Your task to perform on an android device: turn off sleep mode Image 0: 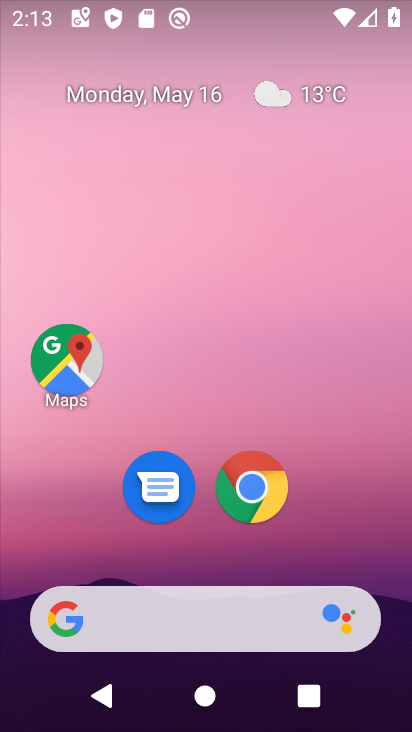
Step 0: drag from (305, 412) to (210, 37)
Your task to perform on an android device: turn off sleep mode Image 1: 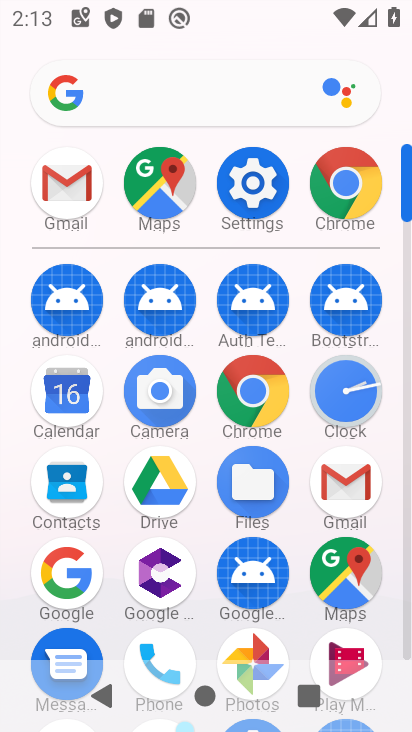
Step 1: click (251, 184)
Your task to perform on an android device: turn off sleep mode Image 2: 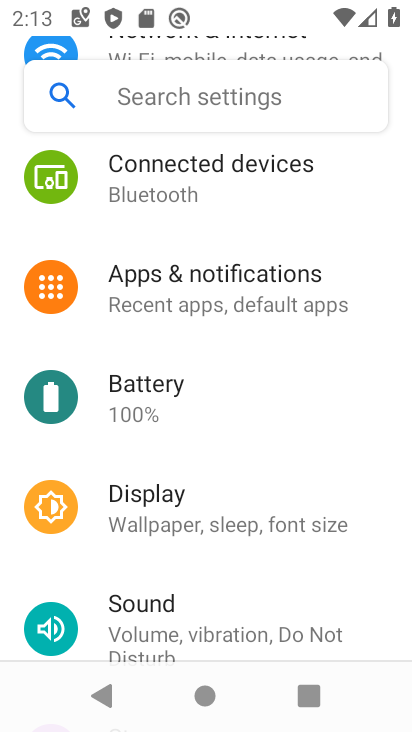
Step 2: drag from (243, 226) to (240, 600)
Your task to perform on an android device: turn off sleep mode Image 3: 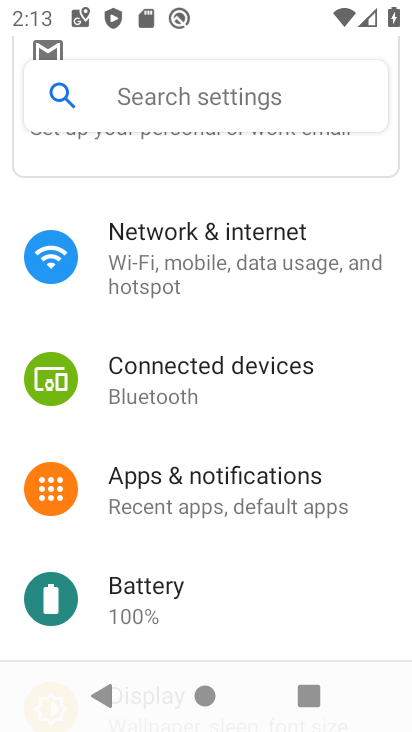
Step 3: click (249, 250)
Your task to perform on an android device: turn off sleep mode Image 4: 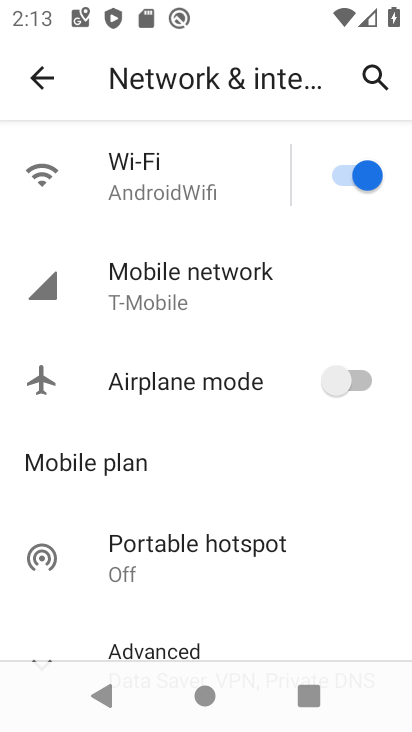
Step 4: drag from (265, 519) to (210, 174)
Your task to perform on an android device: turn off sleep mode Image 5: 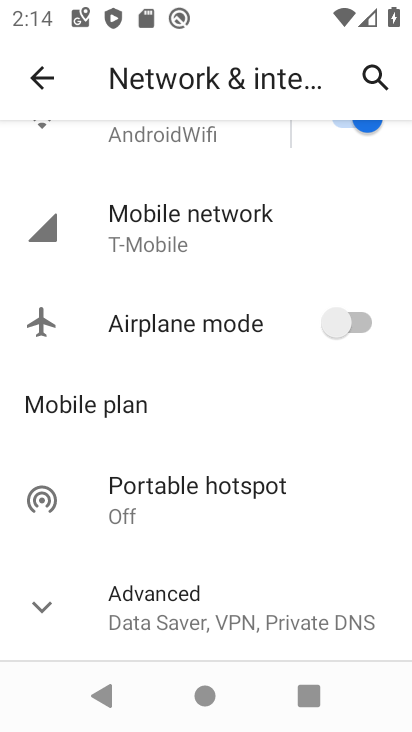
Step 5: click (54, 70)
Your task to perform on an android device: turn off sleep mode Image 6: 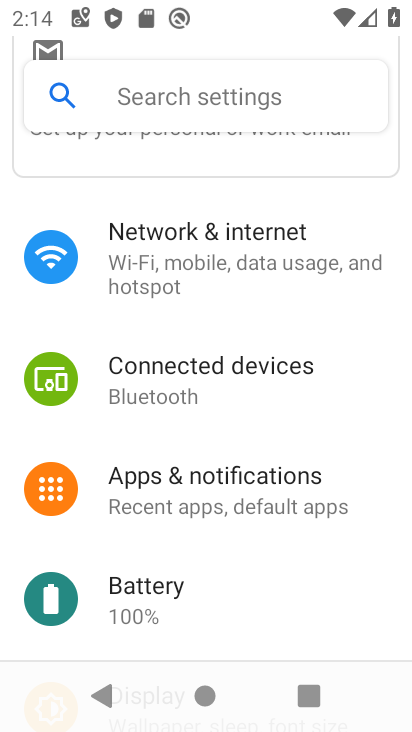
Step 6: drag from (234, 510) to (236, 243)
Your task to perform on an android device: turn off sleep mode Image 7: 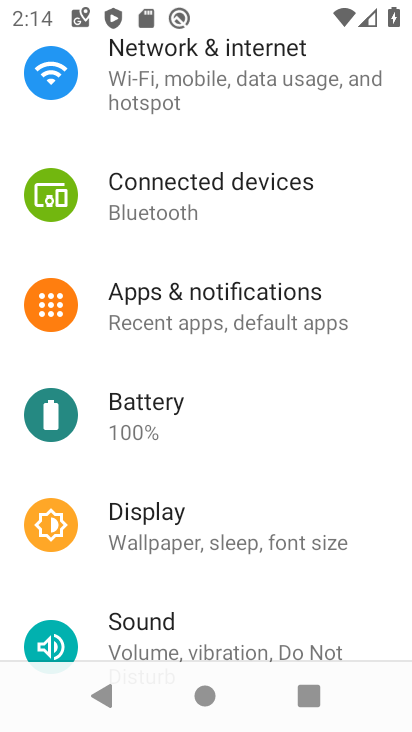
Step 7: click (234, 514)
Your task to perform on an android device: turn off sleep mode Image 8: 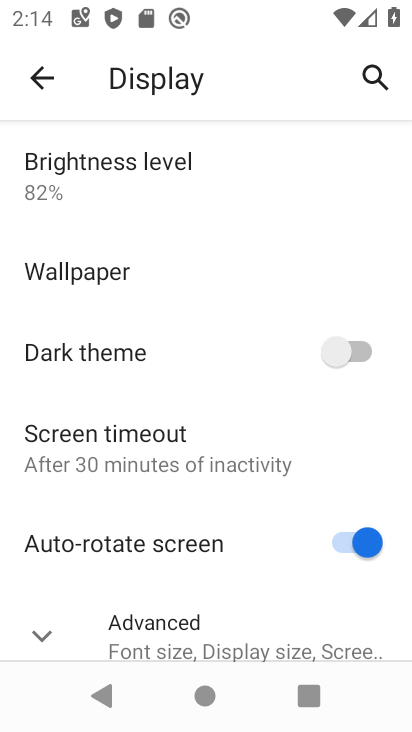
Step 8: drag from (141, 560) to (177, 162)
Your task to perform on an android device: turn off sleep mode Image 9: 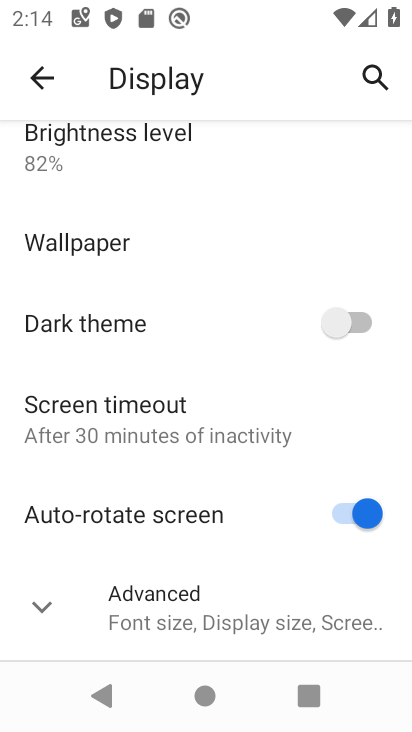
Step 9: click (41, 605)
Your task to perform on an android device: turn off sleep mode Image 10: 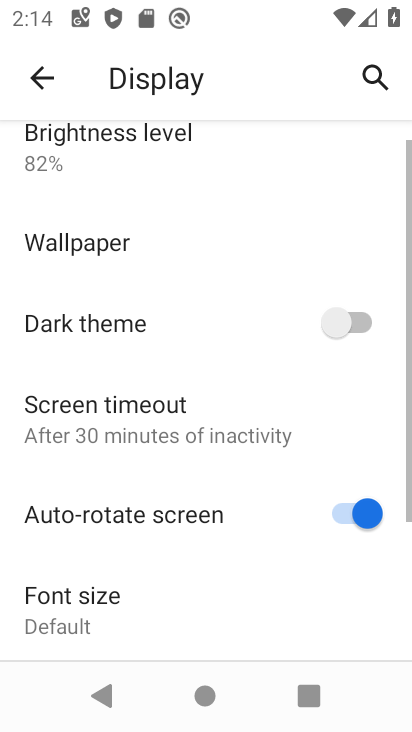
Step 10: task complete